Your task to perform on an android device: What's the weather like in Singapore? Image 0: 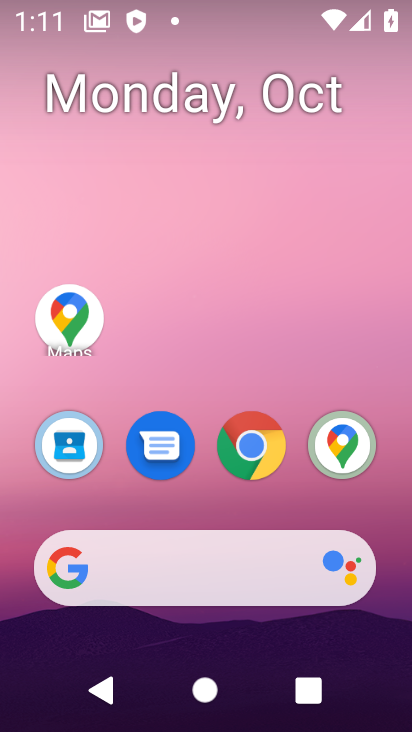
Step 0: click (183, 579)
Your task to perform on an android device: What's the weather like in Singapore? Image 1: 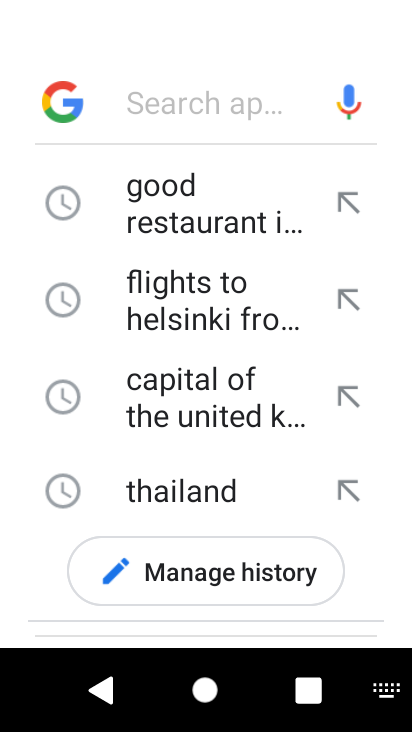
Step 1: type "weather like in Singapore"
Your task to perform on an android device: What's the weather like in Singapore? Image 2: 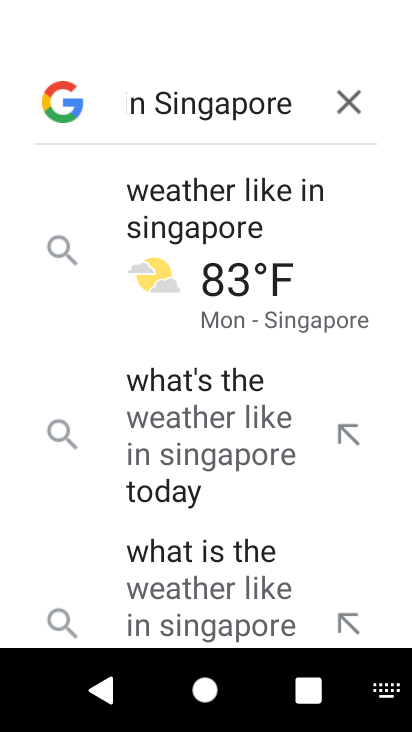
Step 2: type ""
Your task to perform on an android device: What's the weather like in Singapore? Image 3: 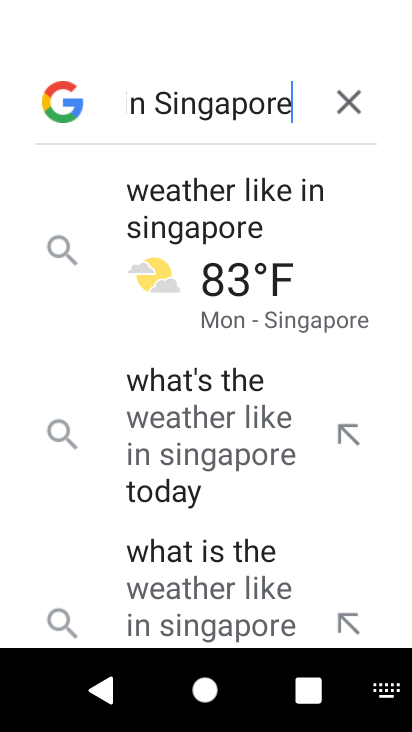
Step 3: click (275, 268)
Your task to perform on an android device: What's the weather like in Singapore? Image 4: 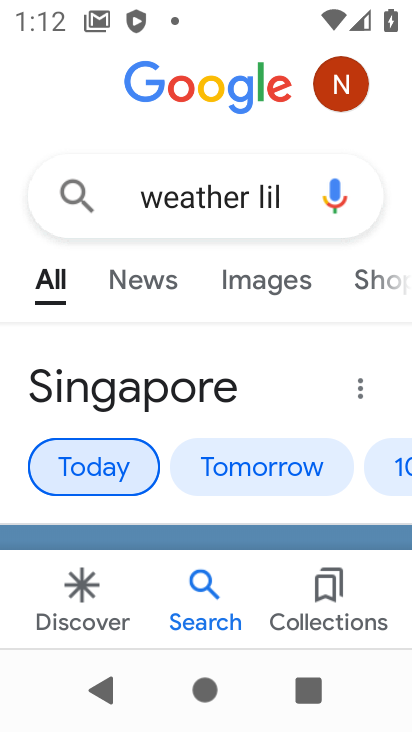
Step 4: task complete